Your task to perform on an android device: check storage Image 0: 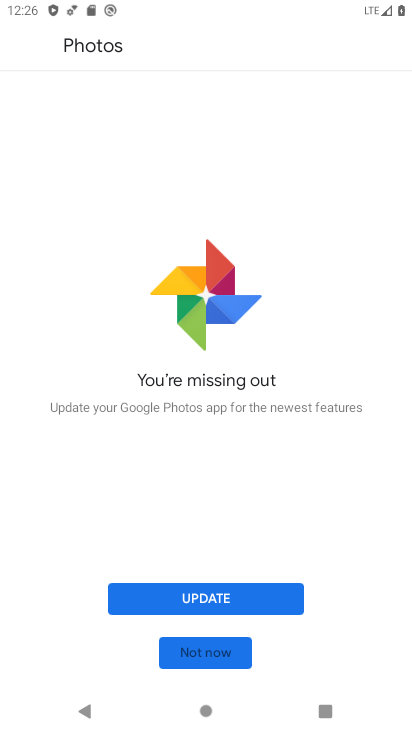
Step 0: press home button
Your task to perform on an android device: check storage Image 1: 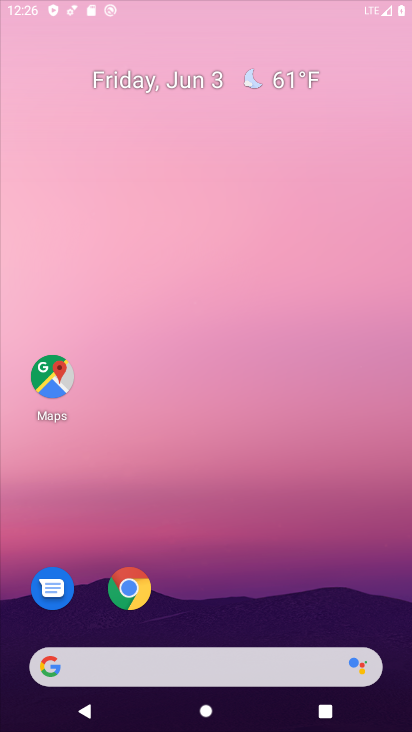
Step 1: drag from (266, 582) to (306, 97)
Your task to perform on an android device: check storage Image 2: 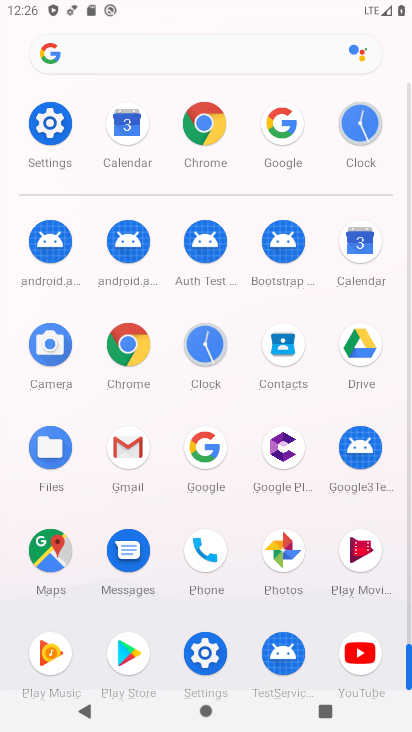
Step 2: click (195, 658)
Your task to perform on an android device: check storage Image 3: 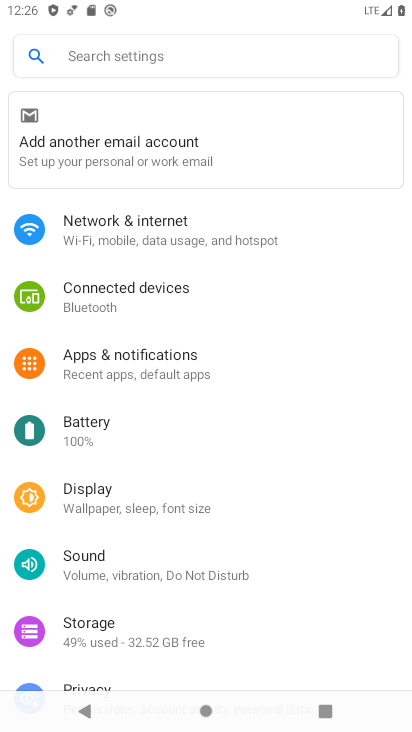
Step 3: click (173, 643)
Your task to perform on an android device: check storage Image 4: 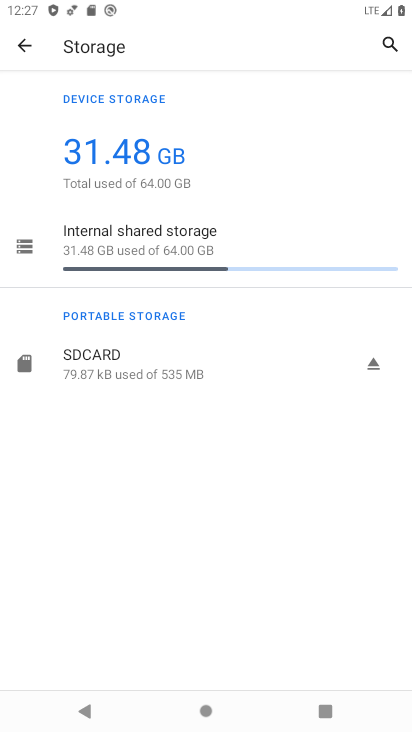
Step 4: click (238, 257)
Your task to perform on an android device: check storage Image 5: 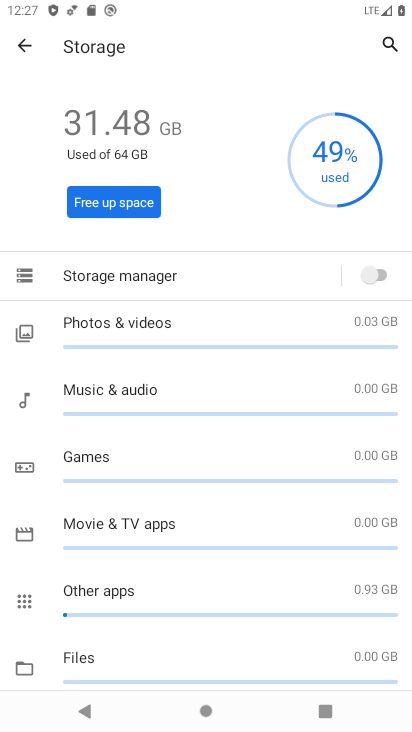
Step 5: task complete